Your task to perform on an android device: Show me popular videos on Youtube Image 0: 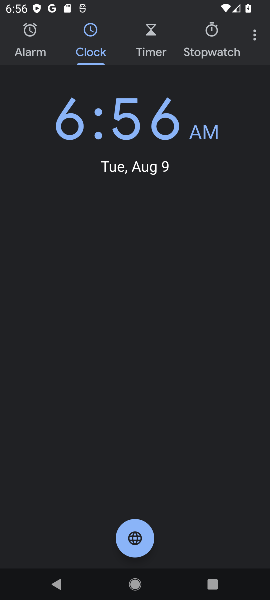
Step 0: press home button
Your task to perform on an android device: Show me popular videos on Youtube Image 1: 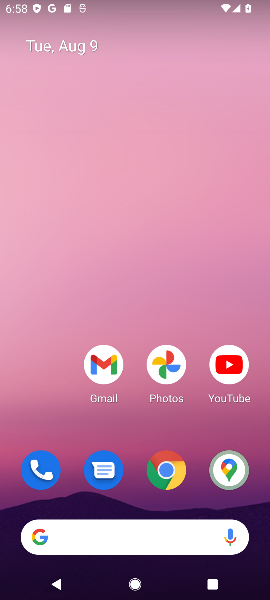
Step 1: click (228, 360)
Your task to perform on an android device: Show me popular videos on Youtube Image 2: 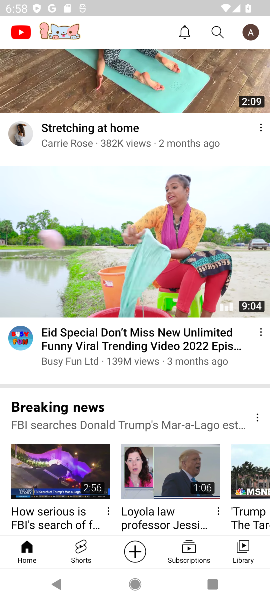
Step 2: task complete